Your task to perform on an android device: Do I have any events today? Image 0: 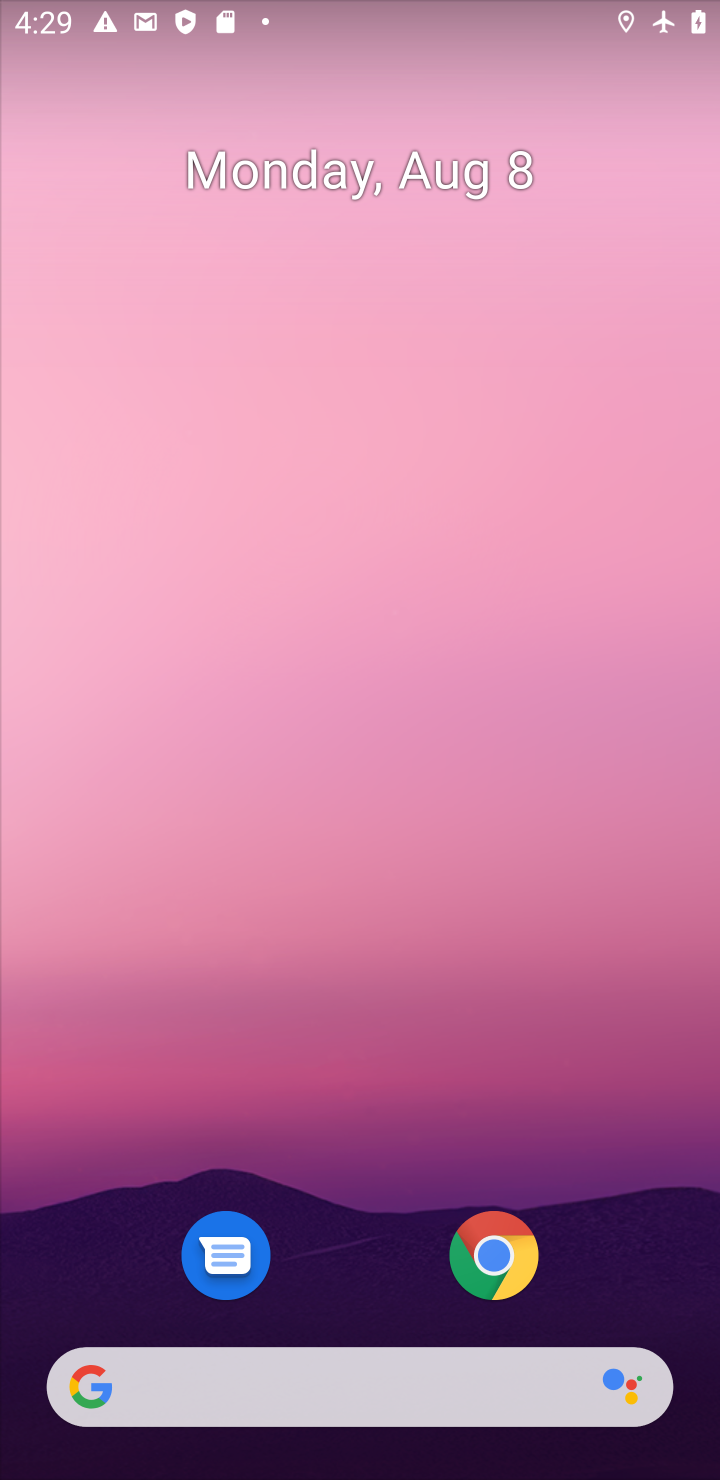
Step 0: drag from (251, 1382) to (383, 530)
Your task to perform on an android device: Do I have any events today? Image 1: 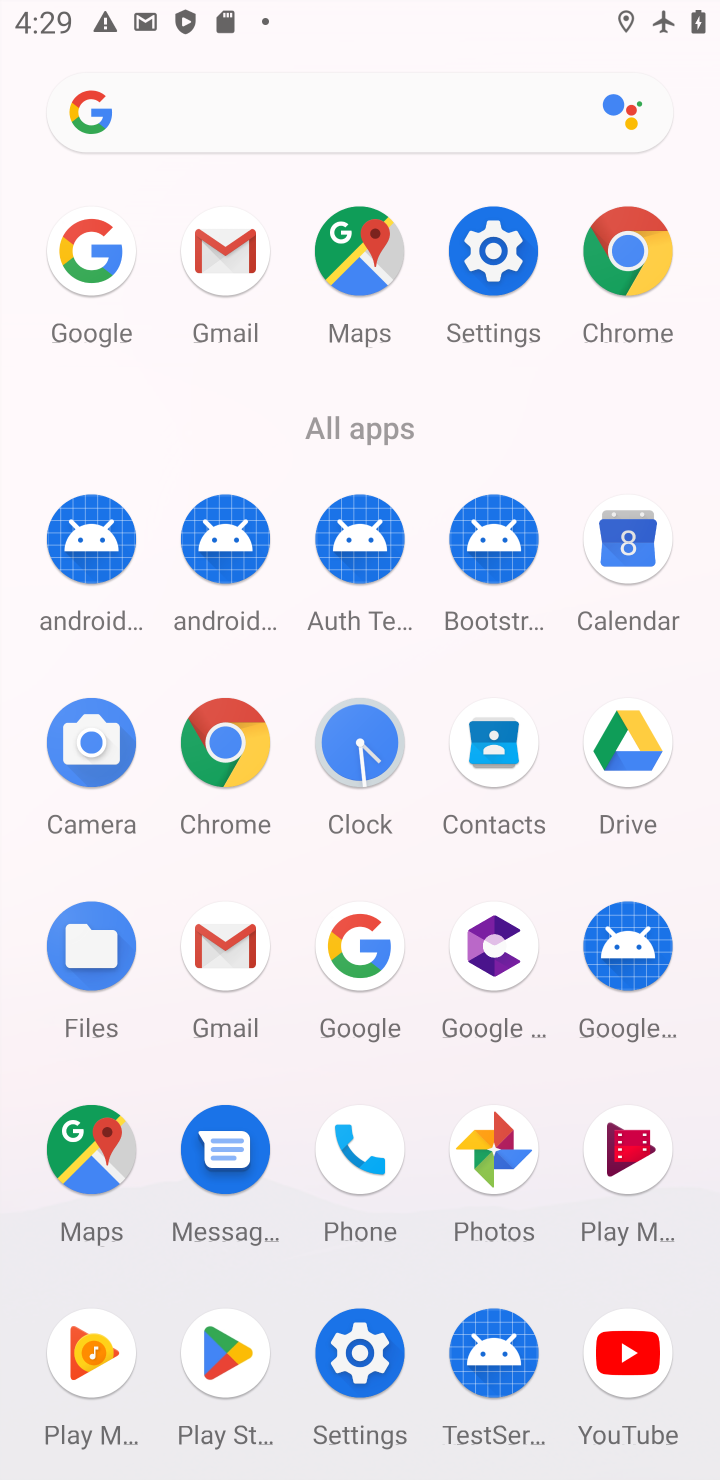
Step 1: click (628, 547)
Your task to perform on an android device: Do I have any events today? Image 2: 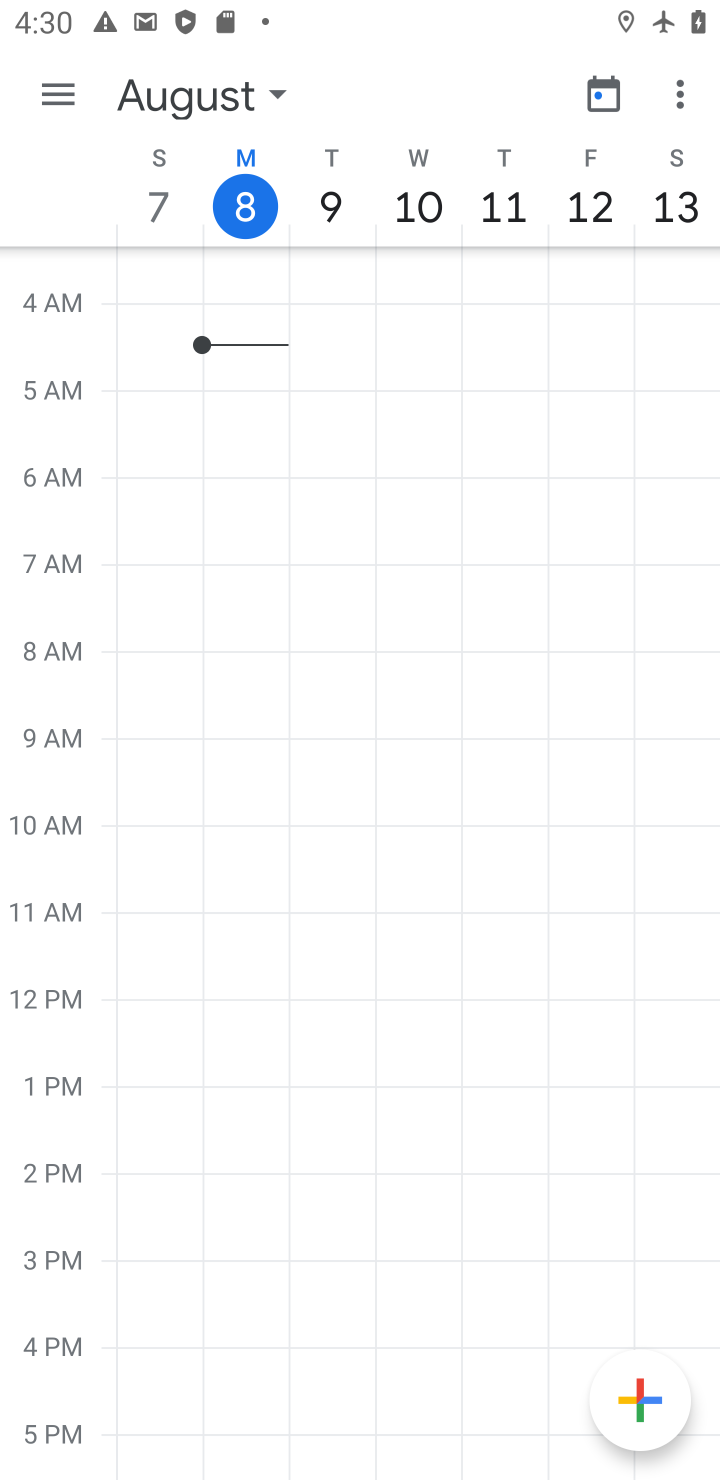
Step 2: click (613, 99)
Your task to perform on an android device: Do I have any events today? Image 3: 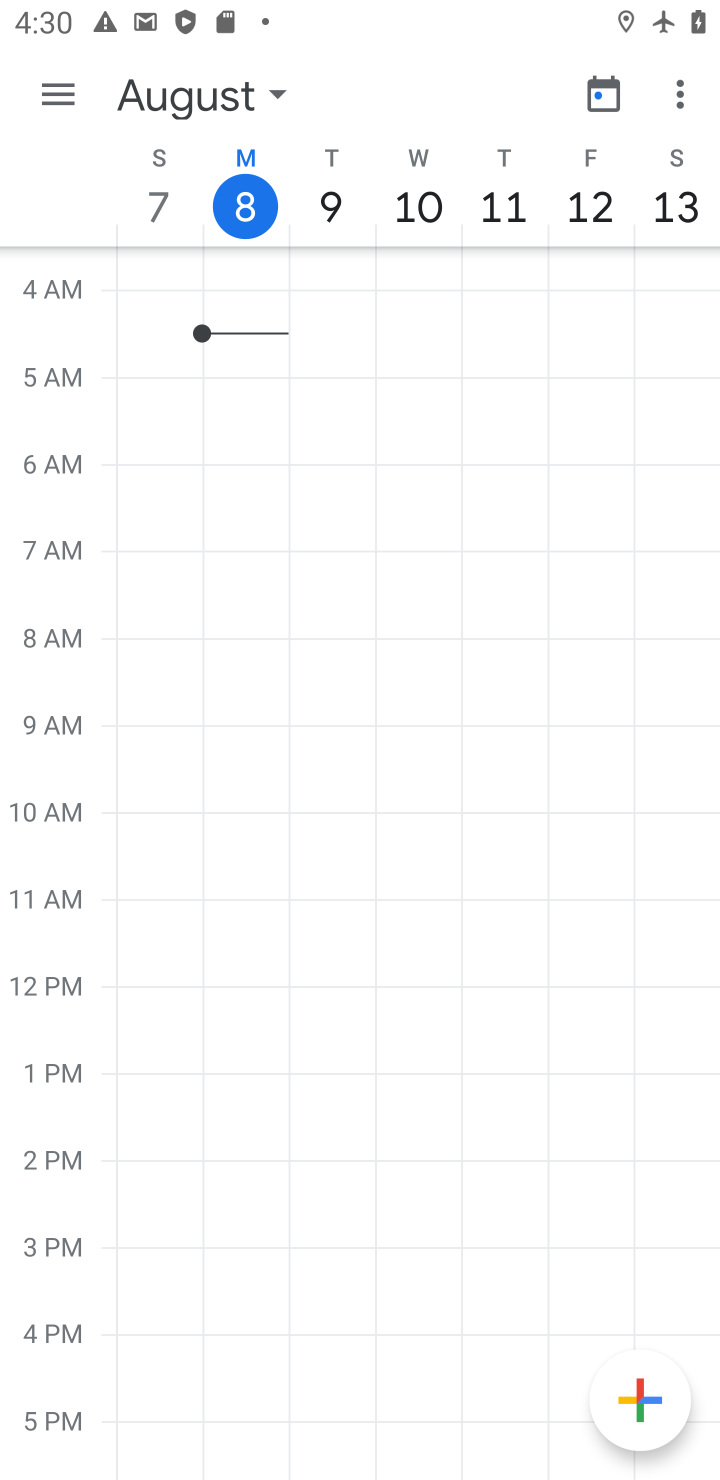
Step 3: click (276, 95)
Your task to perform on an android device: Do I have any events today? Image 4: 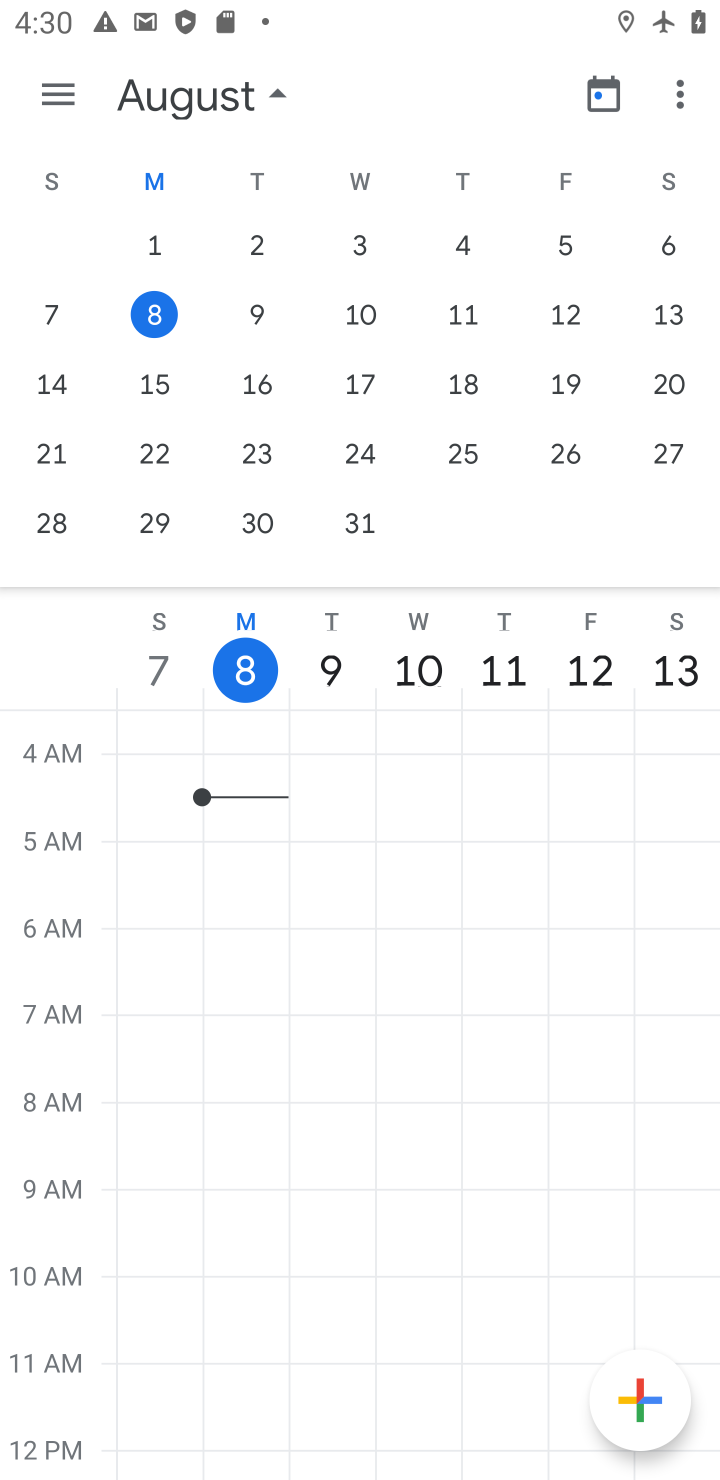
Step 4: click (174, 329)
Your task to perform on an android device: Do I have any events today? Image 5: 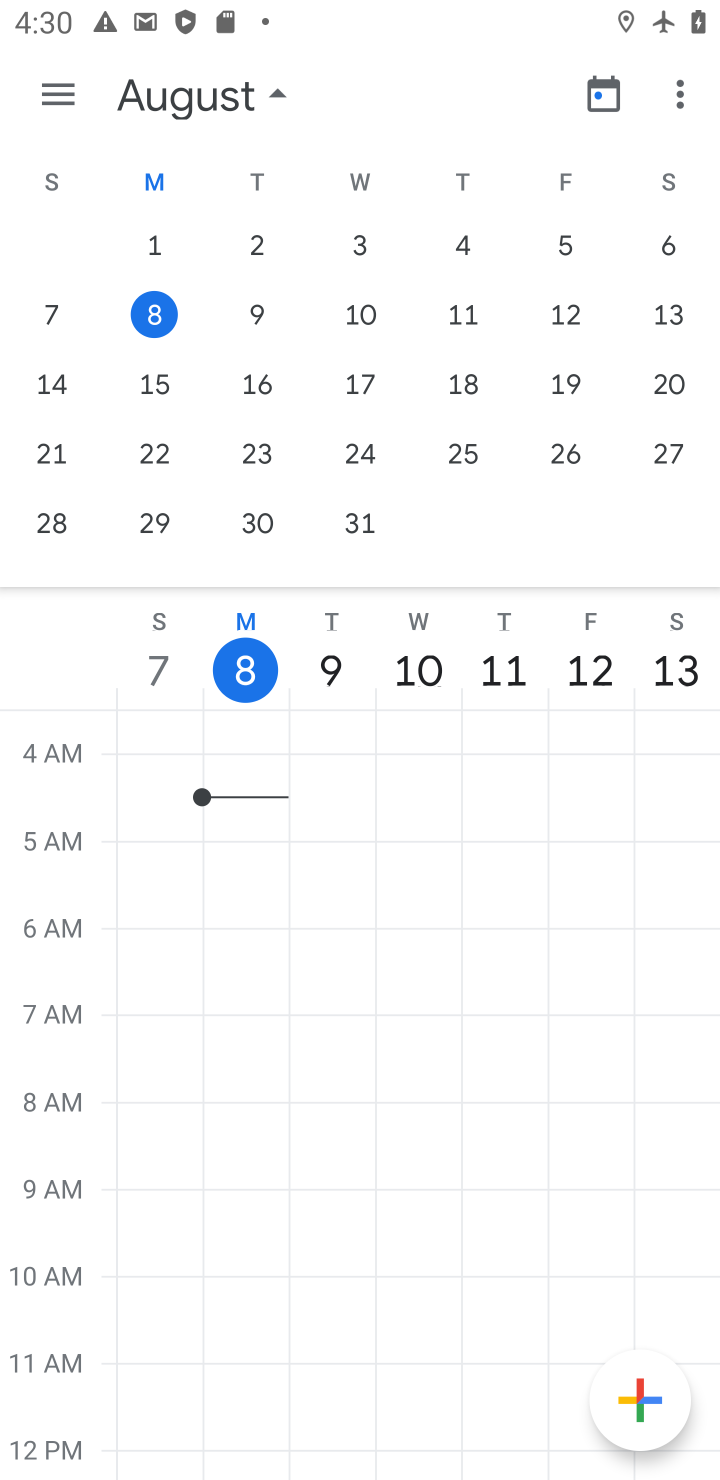
Step 5: click (69, 98)
Your task to perform on an android device: Do I have any events today? Image 6: 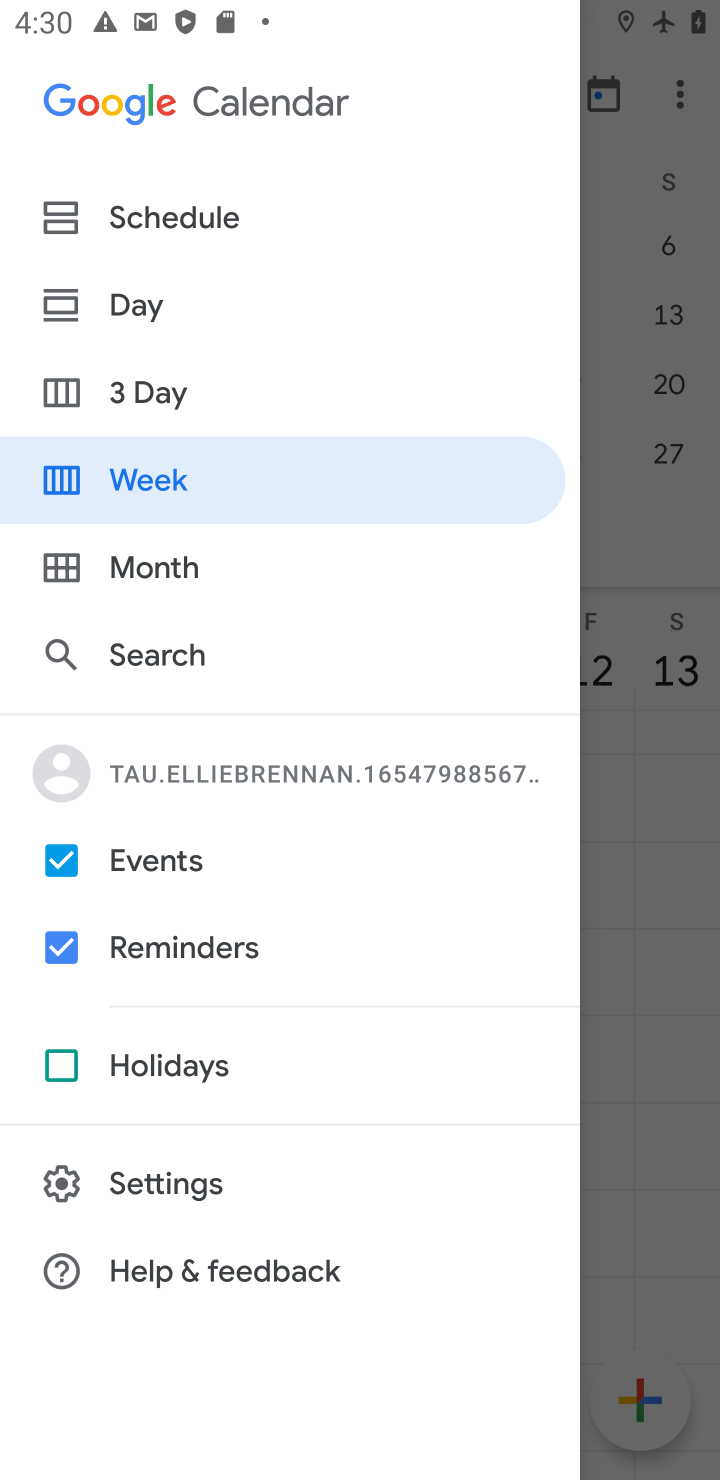
Step 6: click (163, 227)
Your task to perform on an android device: Do I have any events today? Image 7: 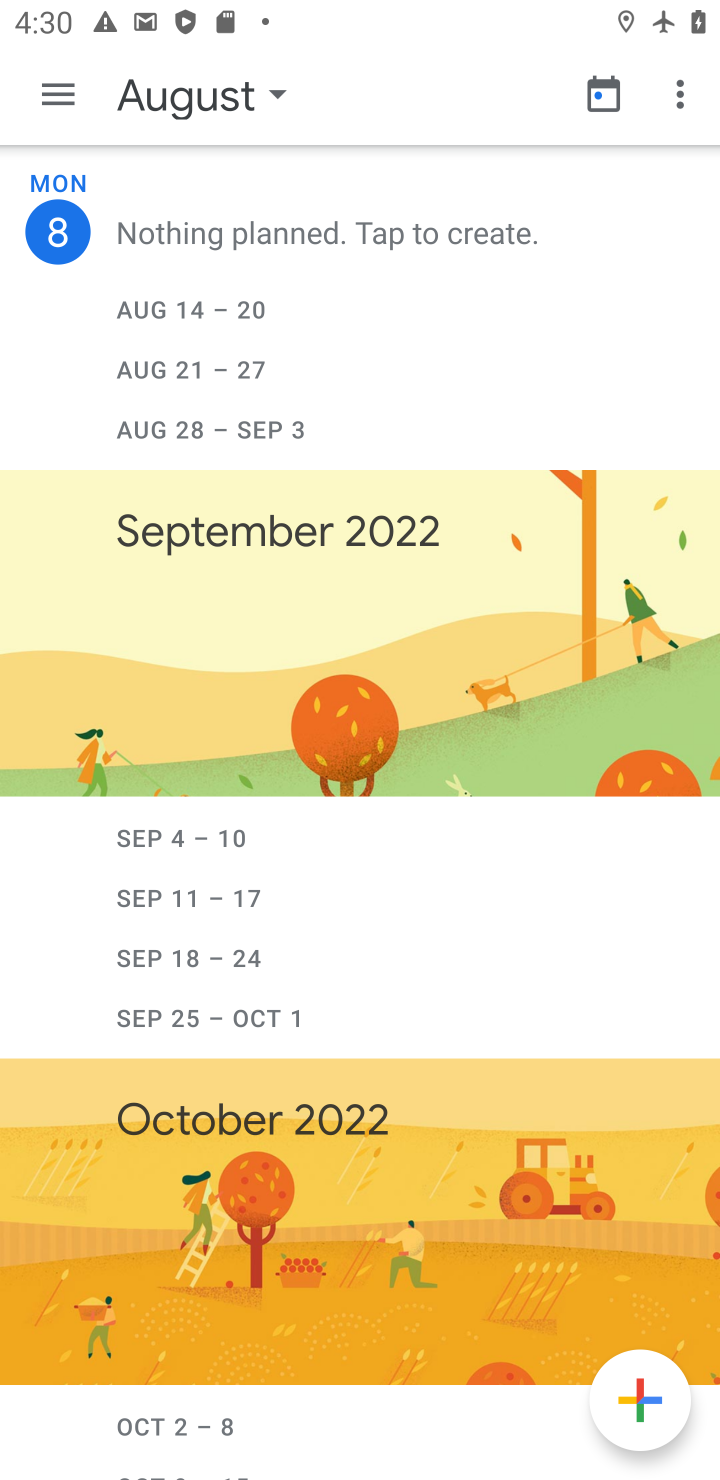
Step 7: task complete